Your task to perform on an android device: Open Chrome and go to the settings page Image 0: 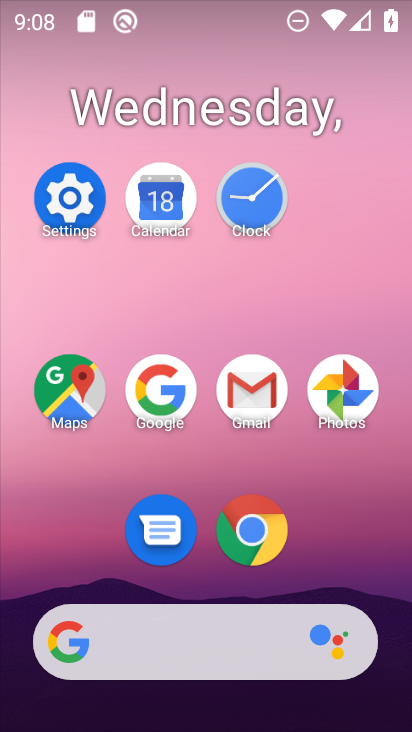
Step 0: click (260, 510)
Your task to perform on an android device: Open Chrome and go to the settings page Image 1: 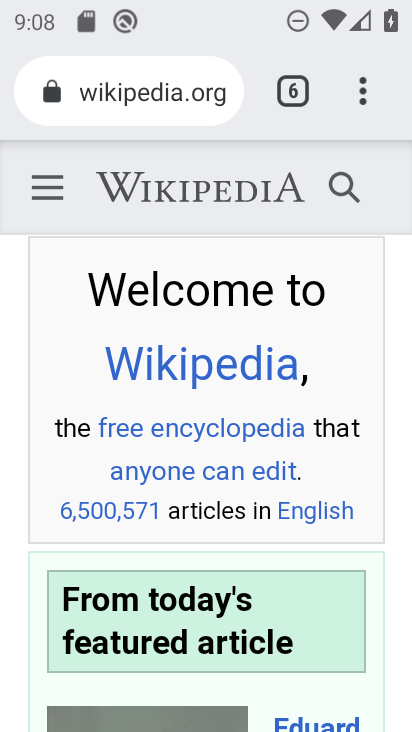
Step 1: click (370, 78)
Your task to perform on an android device: Open Chrome and go to the settings page Image 2: 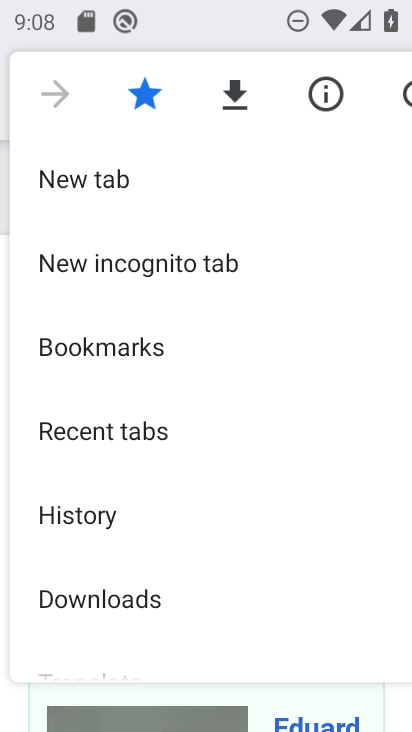
Step 2: drag from (293, 482) to (313, 179)
Your task to perform on an android device: Open Chrome and go to the settings page Image 3: 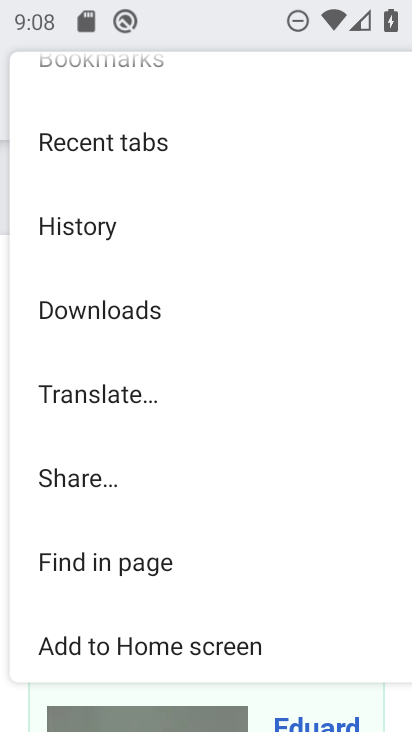
Step 3: drag from (201, 509) to (232, 153)
Your task to perform on an android device: Open Chrome and go to the settings page Image 4: 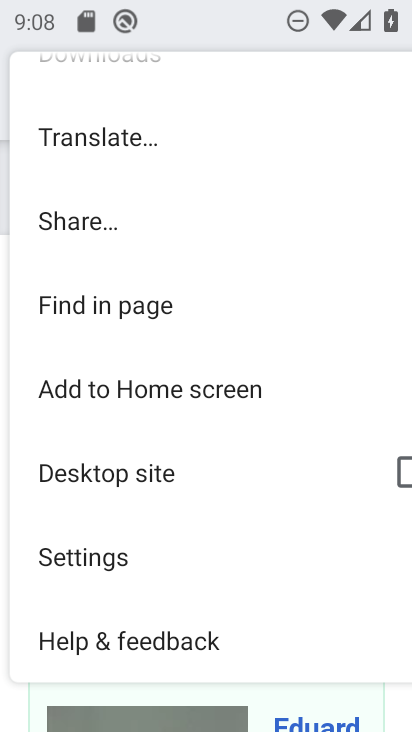
Step 4: click (151, 542)
Your task to perform on an android device: Open Chrome and go to the settings page Image 5: 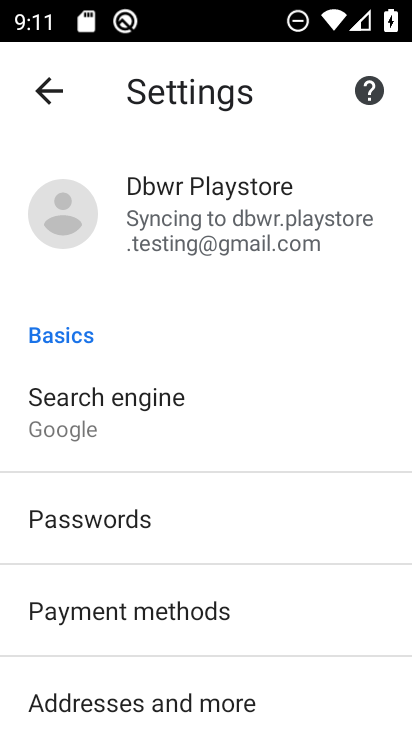
Step 5: task complete